Your task to perform on an android device: What's the weather going to be this weekend? Image 0: 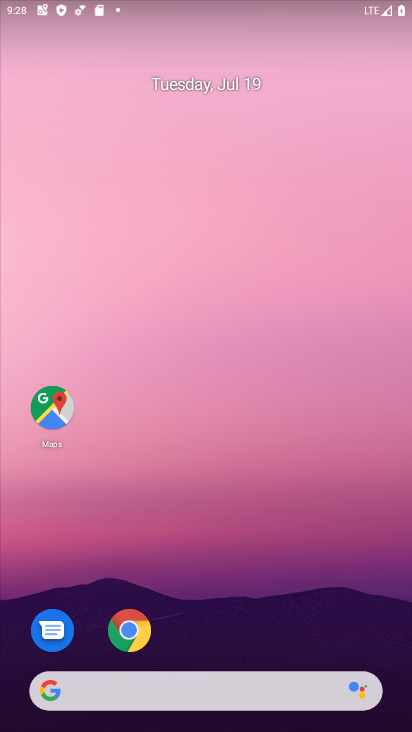
Step 0: drag from (250, 667) to (305, 57)
Your task to perform on an android device: What's the weather going to be this weekend? Image 1: 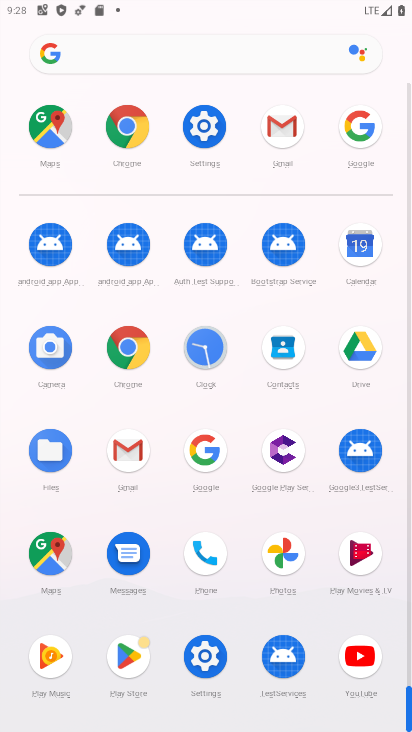
Step 1: click (195, 471)
Your task to perform on an android device: What's the weather going to be this weekend? Image 2: 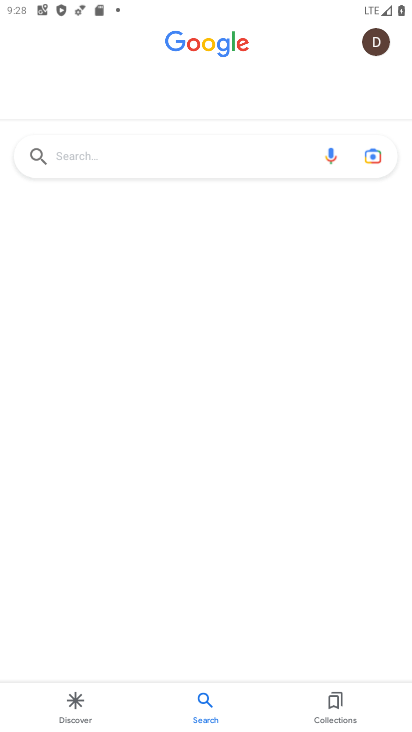
Step 2: click (173, 161)
Your task to perform on an android device: What's the weather going to be this weekend? Image 3: 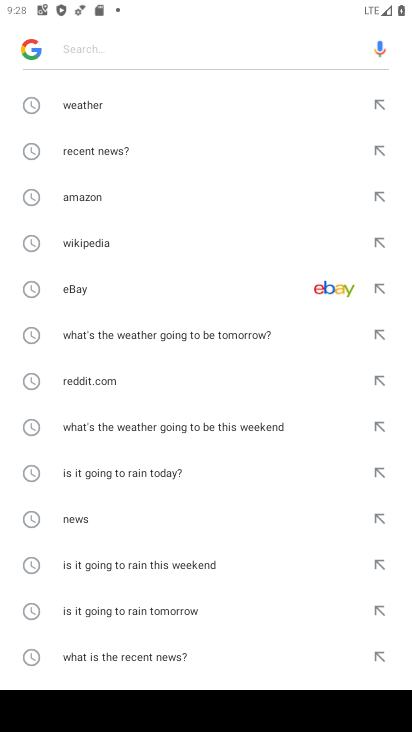
Step 3: click (105, 100)
Your task to perform on an android device: What's the weather going to be this weekend? Image 4: 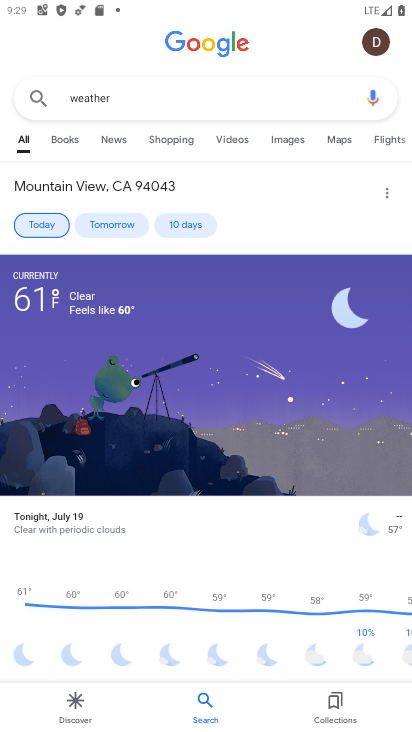
Step 4: click (195, 229)
Your task to perform on an android device: What's the weather going to be this weekend? Image 5: 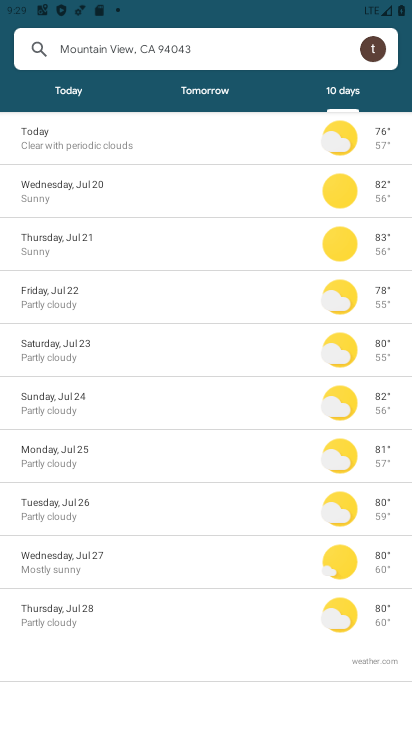
Step 5: task complete